Your task to perform on an android device: When is my next appointment? Image 0: 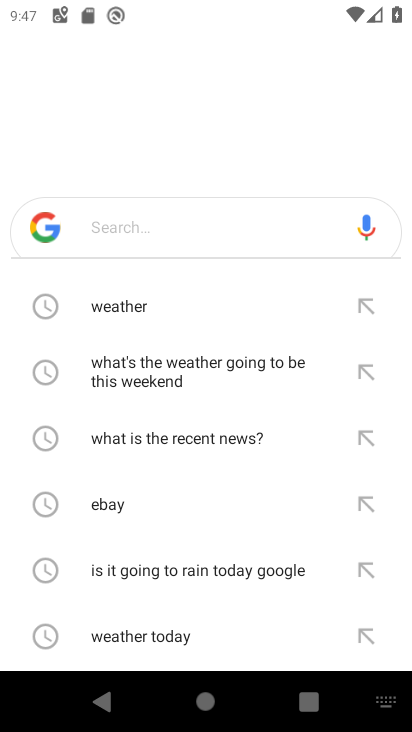
Step 0: press back button
Your task to perform on an android device: When is my next appointment? Image 1: 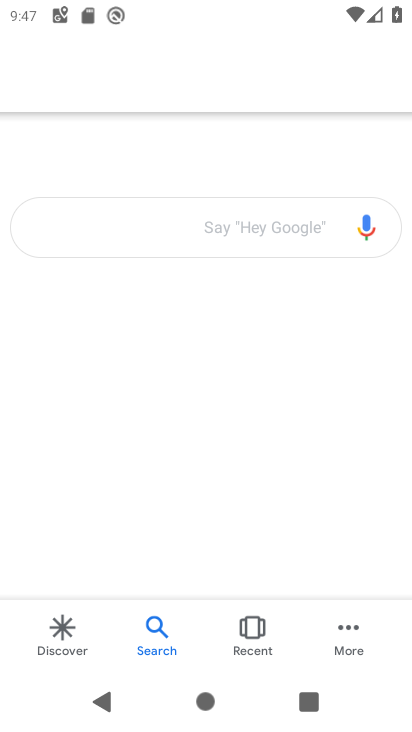
Step 1: press back button
Your task to perform on an android device: When is my next appointment? Image 2: 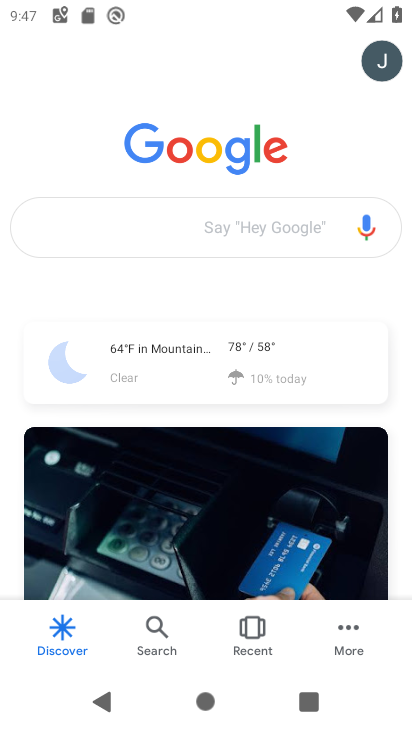
Step 2: press back button
Your task to perform on an android device: When is my next appointment? Image 3: 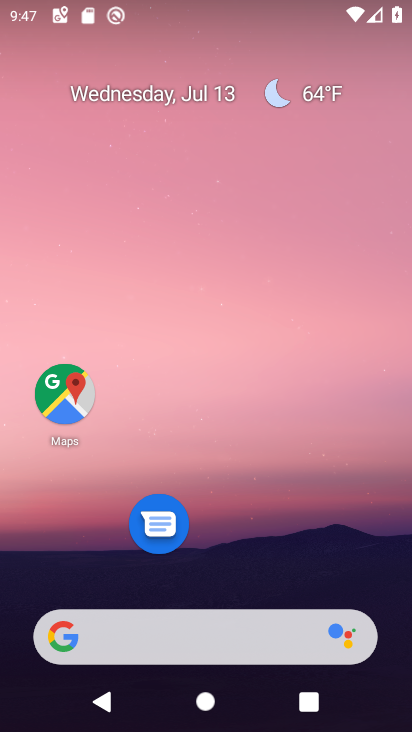
Step 3: drag from (242, 588) to (171, 42)
Your task to perform on an android device: When is my next appointment? Image 4: 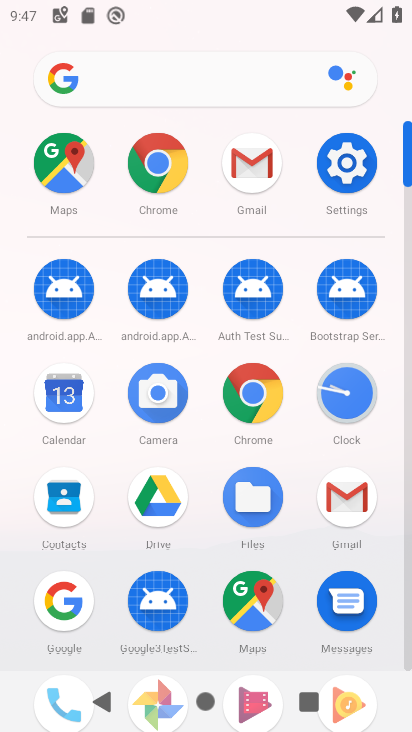
Step 4: click (55, 401)
Your task to perform on an android device: When is my next appointment? Image 5: 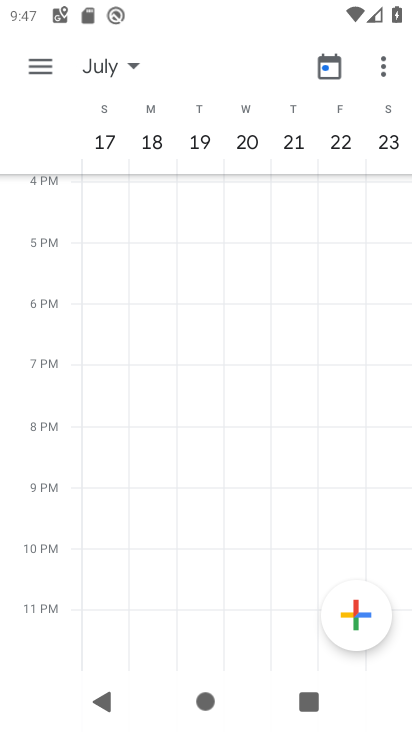
Step 5: task complete